Your task to perform on an android device: Find coffee shops on Maps Image 0: 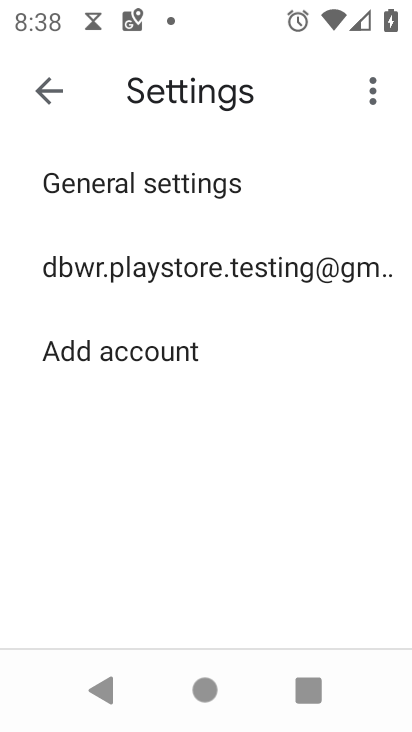
Step 0: press home button
Your task to perform on an android device: Find coffee shops on Maps Image 1: 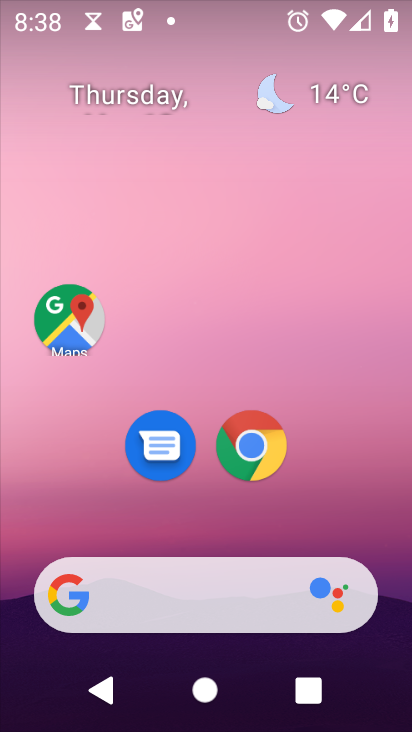
Step 1: drag from (223, 720) to (227, 116)
Your task to perform on an android device: Find coffee shops on Maps Image 2: 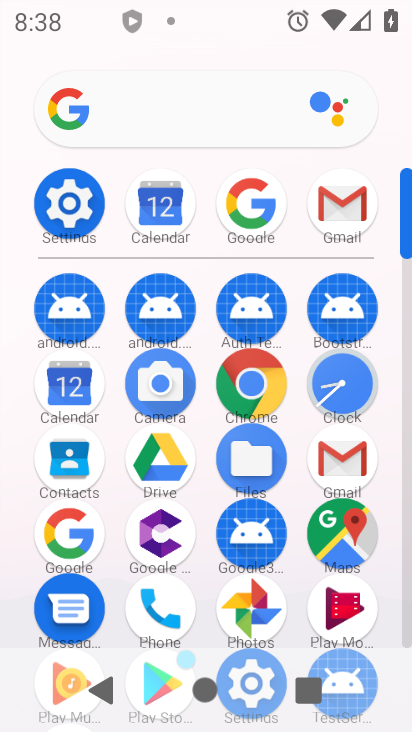
Step 2: click (339, 536)
Your task to perform on an android device: Find coffee shops on Maps Image 3: 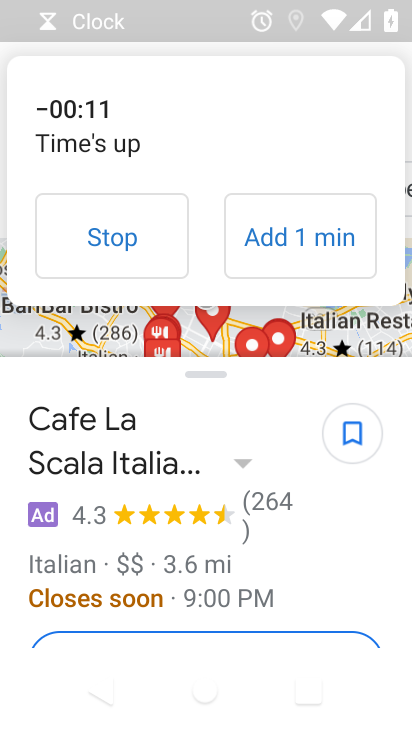
Step 3: click (111, 228)
Your task to perform on an android device: Find coffee shops on Maps Image 4: 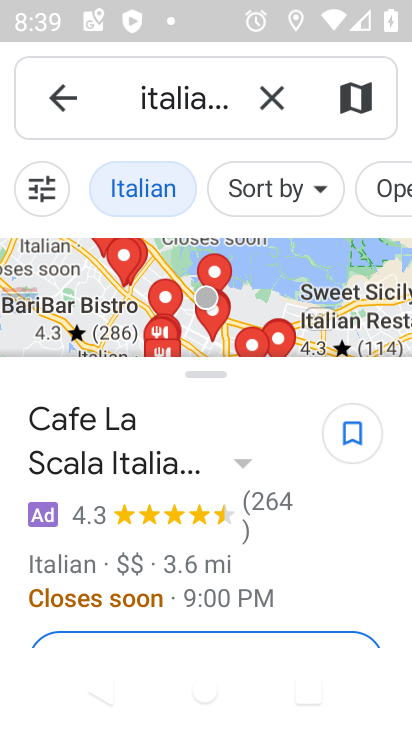
Step 4: click (269, 94)
Your task to perform on an android device: Find coffee shops on Maps Image 5: 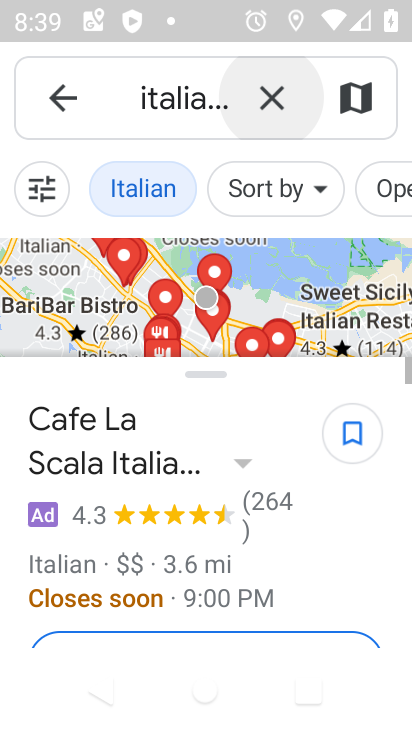
Step 5: click (202, 100)
Your task to perform on an android device: Find coffee shops on Maps Image 6: 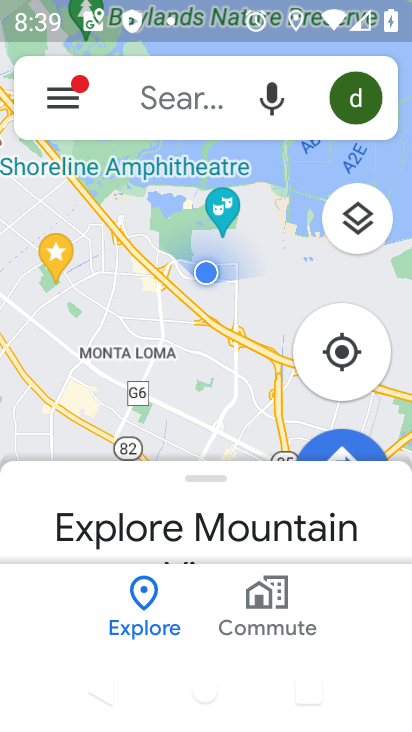
Step 6: click (169, 104)
Your task to perform on an android device: Find coffee shops on Maps Image 7: 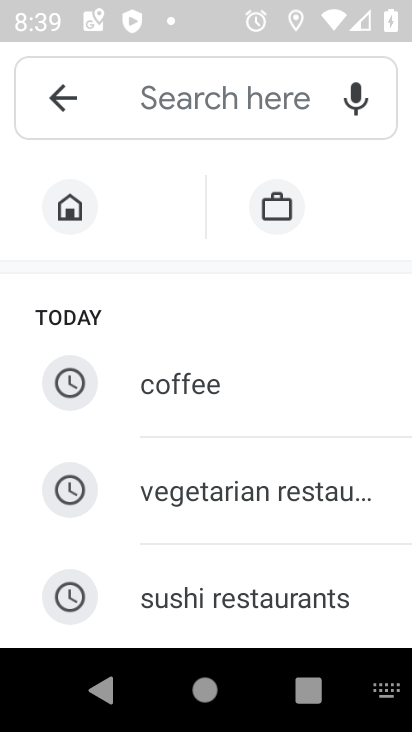
Step 7: type "coffee shops"
Your task to perform on an android device: Find coffee shops on Maps Image 8: 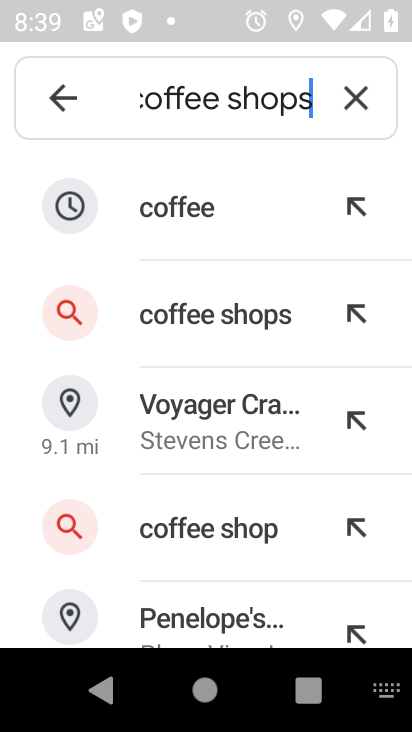
Step 8: click (202, 313)
Your task to perform on an android device: Find coffee shops on Maps Image 9: 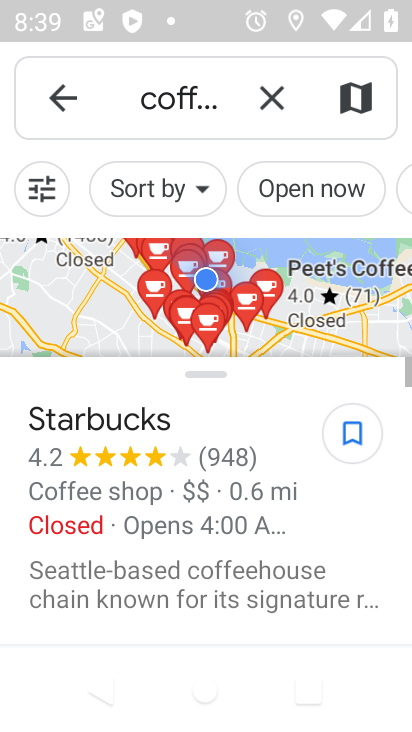
Step 9: task complete